Your task to perform on an android device: Check the news Image 0: 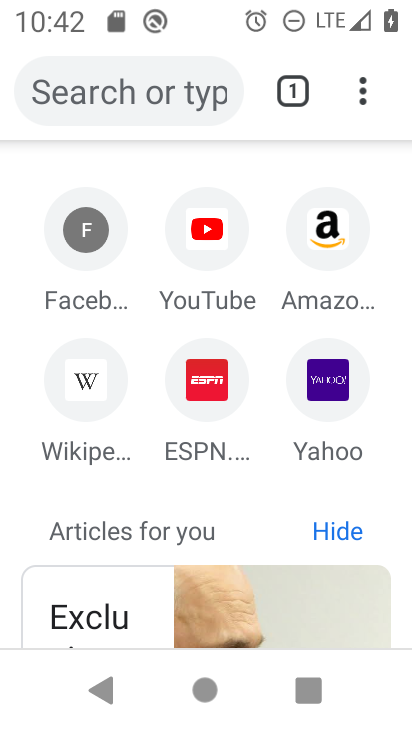
Step 0: click (139, 94)
Your task to perform on an android device: Check the news Image 1: 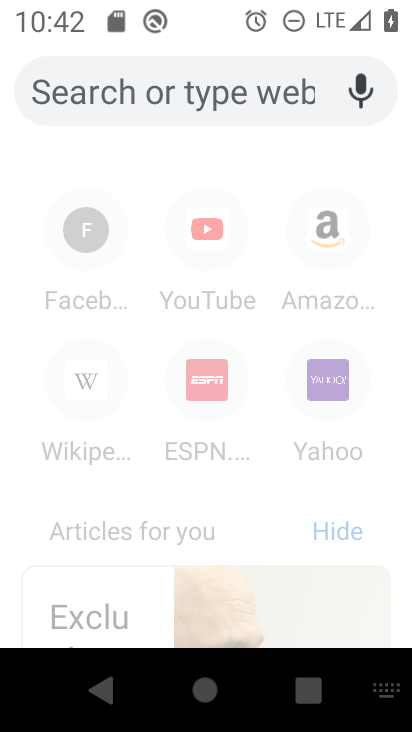
Step 1: type "news"
Your task to perform on an android device: Check the news Image 2: 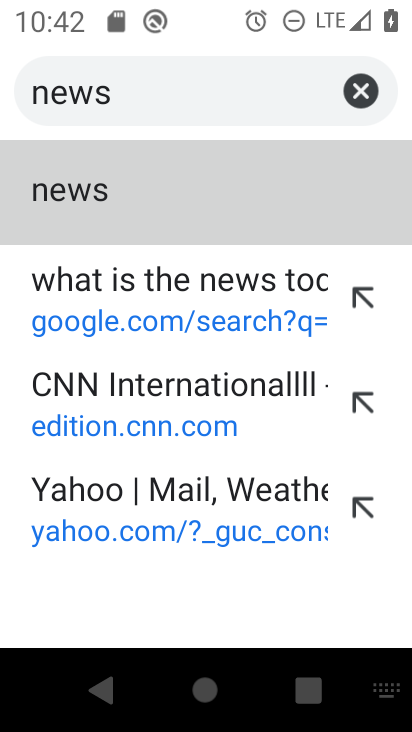
Step 2: click (223, 176)
Your task to perform on an android device: Check the news Image 3: 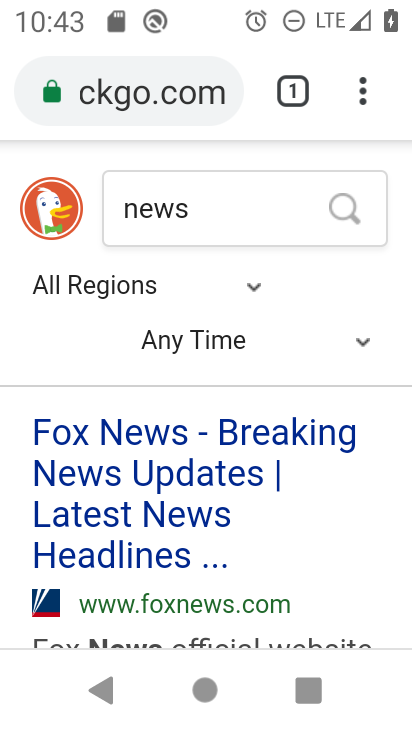
Step 3: task complete